Your task to perform on an android device: turn smart compose on in the gmail app Image 0: 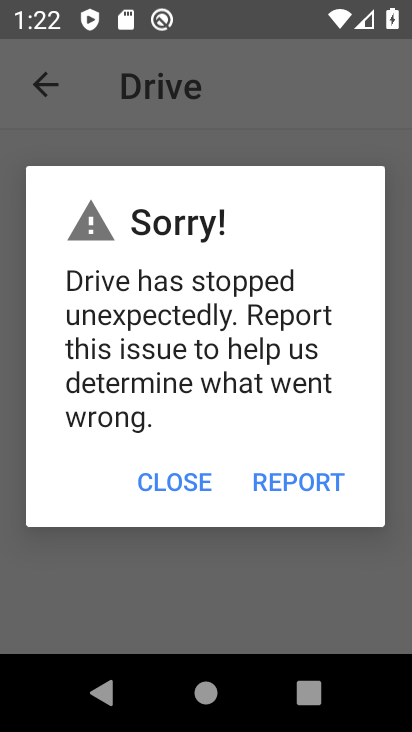
Step 0: press home button
Your task to perform on an android device: turn smart compose on in the gmail app Image 1: 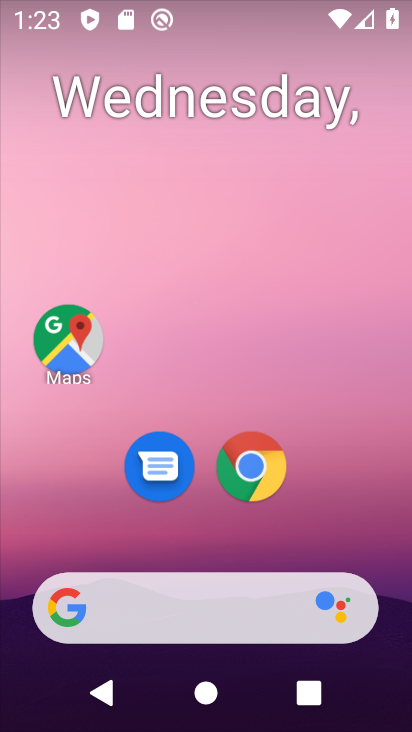
Step 1: drag from (193, 549) to (182, 162)
Your task to perform on an android device: turn smart compose on in the gmail app Image 2: 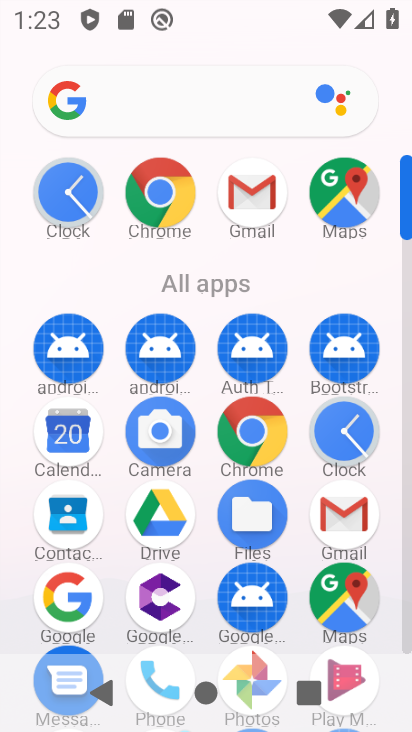
Step 2: click (234, 204)
Your task to perform on an android device: turn smart compose on in the gmail app Image 3: 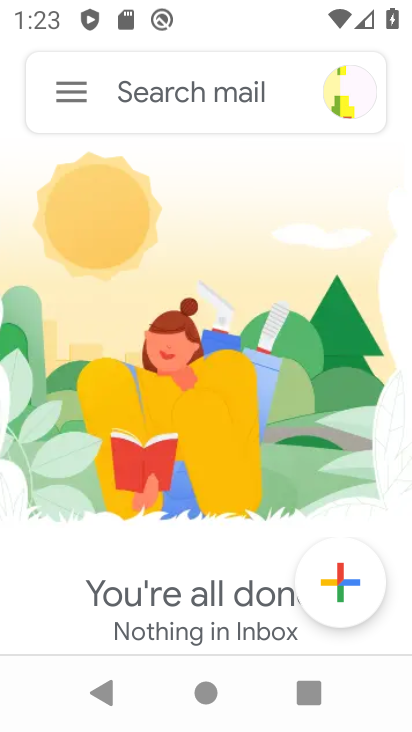
Step 3: click (75, 84)
Your task to perform on an android device: turn smart compose on in the gmail app Image 4: 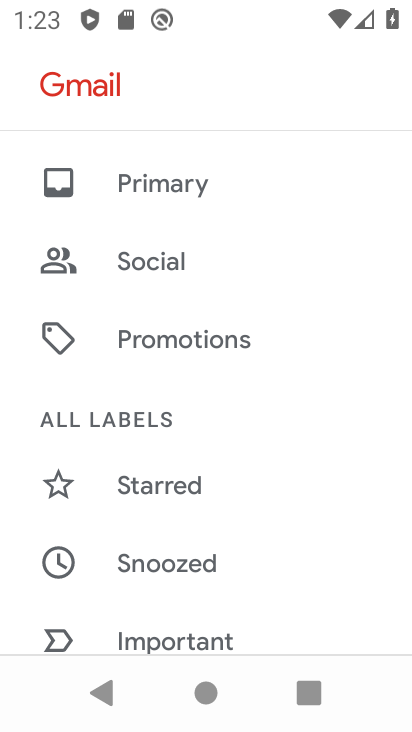
Step 4: drag from (192, 628) to (264, 173)
Your task to perform on an android device: turn smart compose on in the gmail app Image 5: 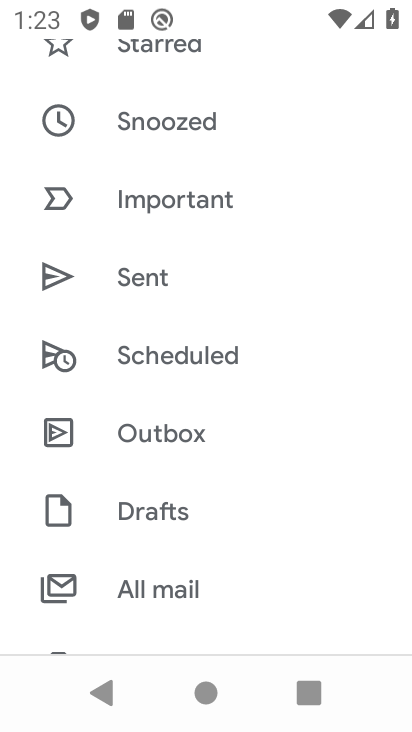
Step 5: drag from (86, 600) to (208, 92)
Your task to perform on an android device: turn smart compose on in the gmail app Image 6: 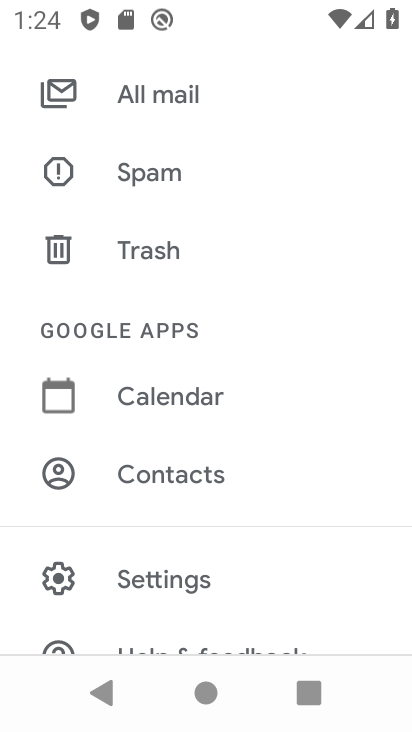
Step 6: click (126, 558)
Your task to perform on an android device: turn smart compose on in the gmail app Image 7: 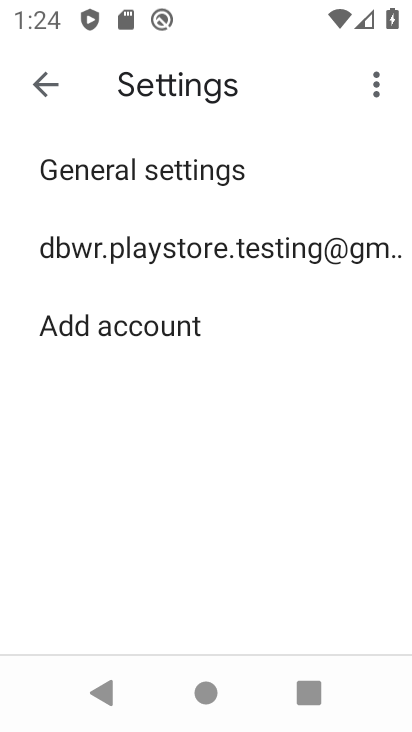
Step 7: click (153, 262)
Your task to perform on an android device: turn smart compose on in the gmail app Image 8: 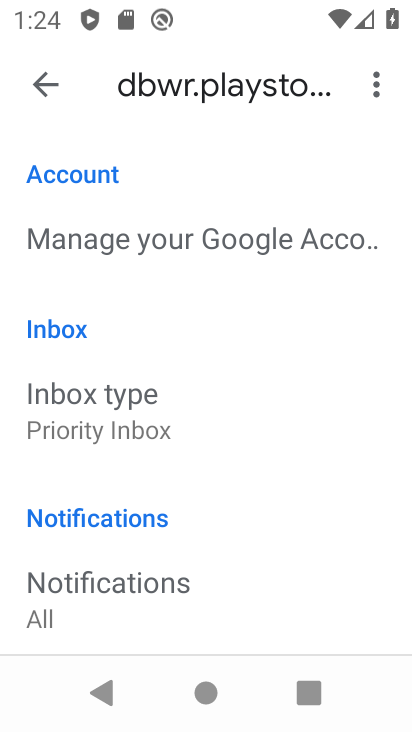
Step 8: task complete